Your task to perform on an android device: Open calendar and show me the third week of next month Image 0: 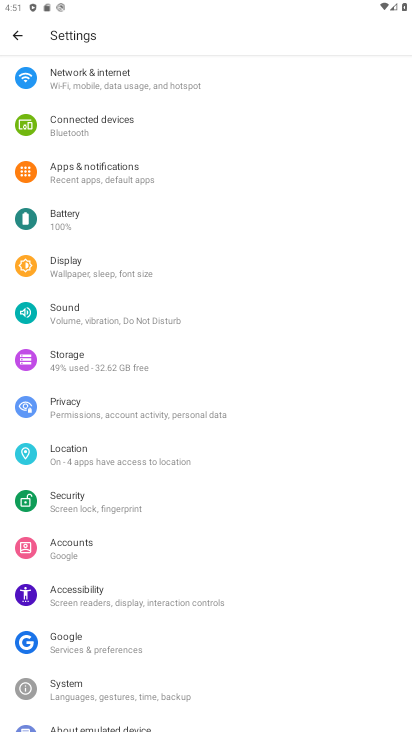
Step 0: press home button
Your task to perform on an android device: Open calendar and show me the third week of next month Image 1: 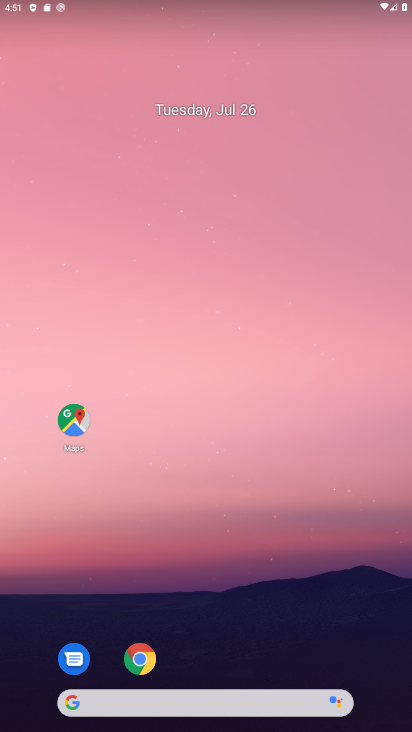
Step 1: drag from (291, 615) to (302, 154)
Your task to perform on an android device: Open calendar and show me the third week of next month Image 2: 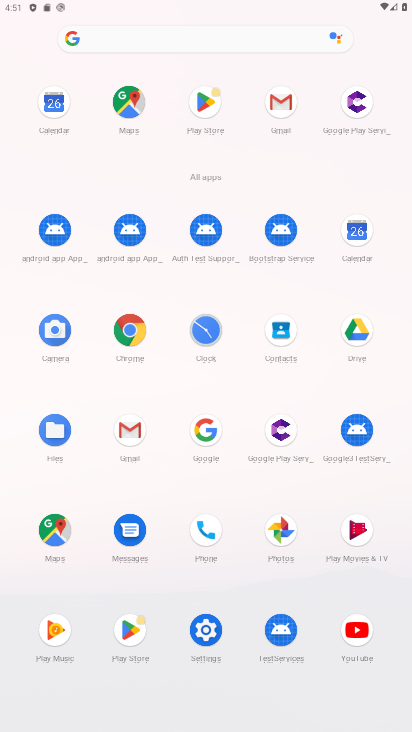
Step 2: click (352, 229)
Your task to perform on an android device: Open calendar and show me the third week of next month Image 3: 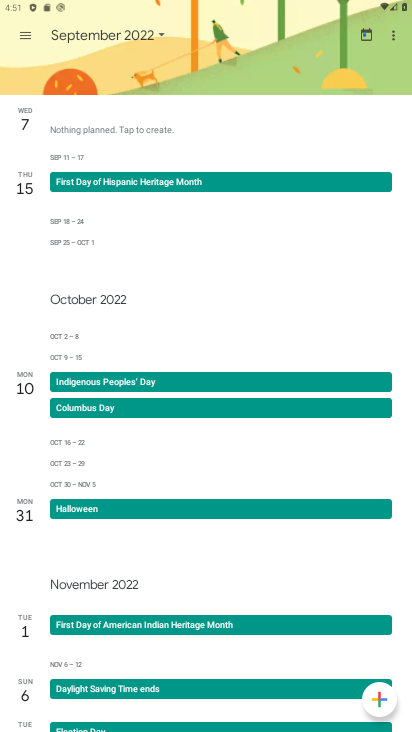
Step 3: click (105, 35)
Your task to perform on an android device: Open calendar and show me the third week of next month Image 4: 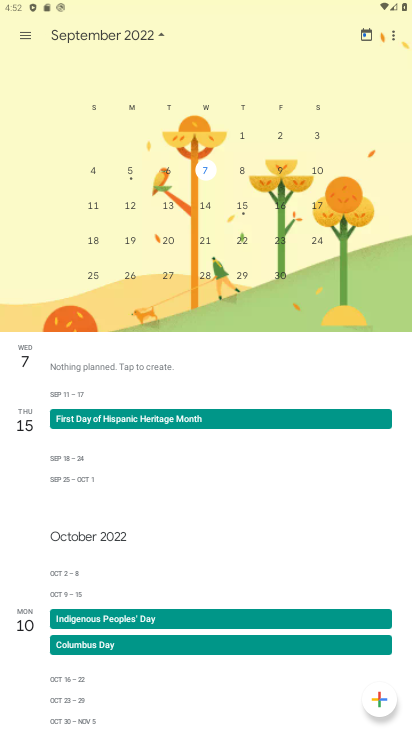
Step 4: drag from (76, 177) to (385, 198)
Your task to perform on an android device: Open calendar and show me the third week of next month Image 5: 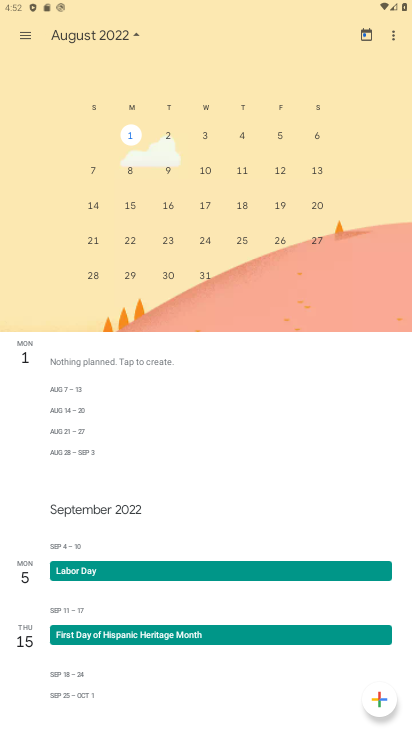
Step 5: click (133, 230)
Your task to perform on an android device: Open calendar and show me the third week of next month Image 6: 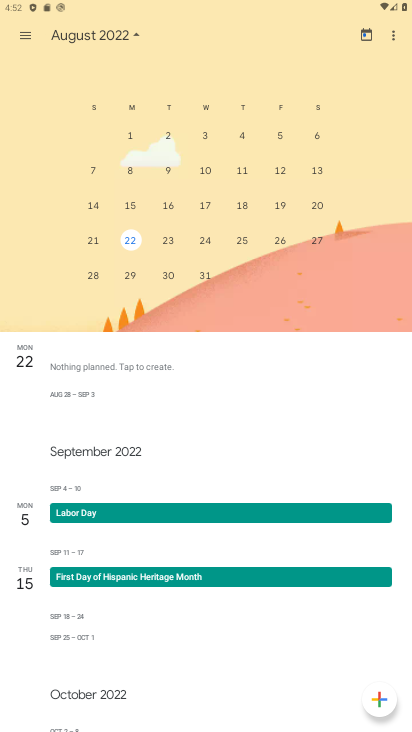
Step 6: task complete